Your task to perform on an android device: change the upload size in google photos Image 0: 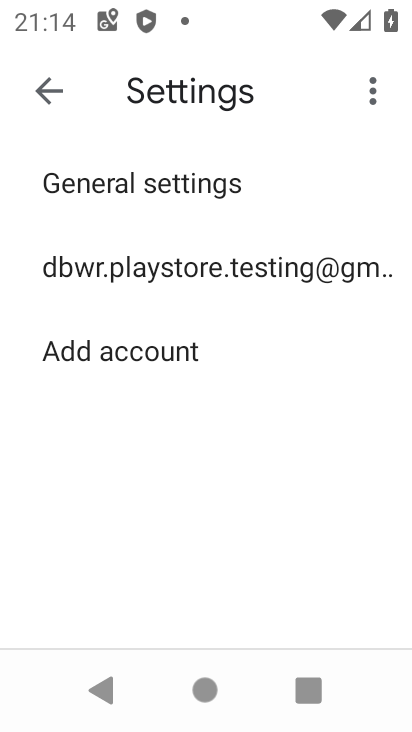
Step 0: press home button
Your task to perform on an android device: change the upload size in google photos Image 1: 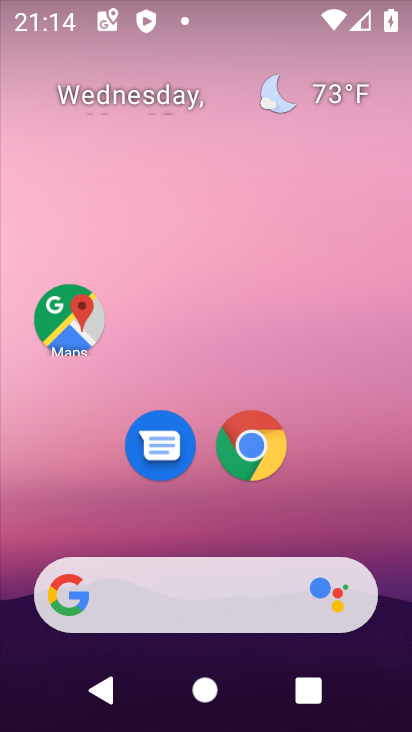
Step 1: drag from (336, 510) to (316, 212)
Your task to perform on an android device: change the upload size in google photos Image 2: 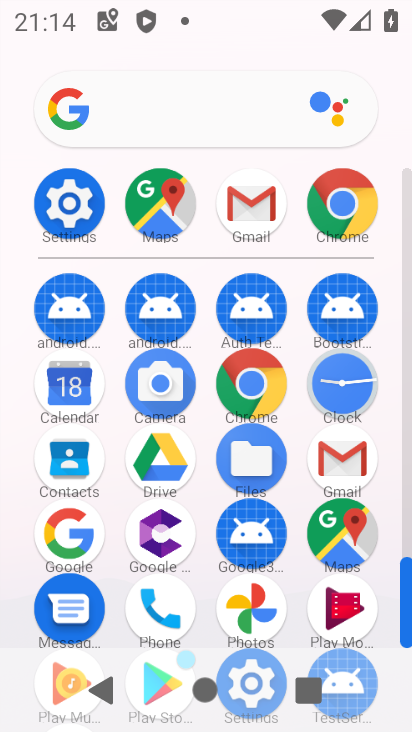
Step 2: click (244, 597)
Your task to perform on an android device: change the upload size in google photos Image 3: 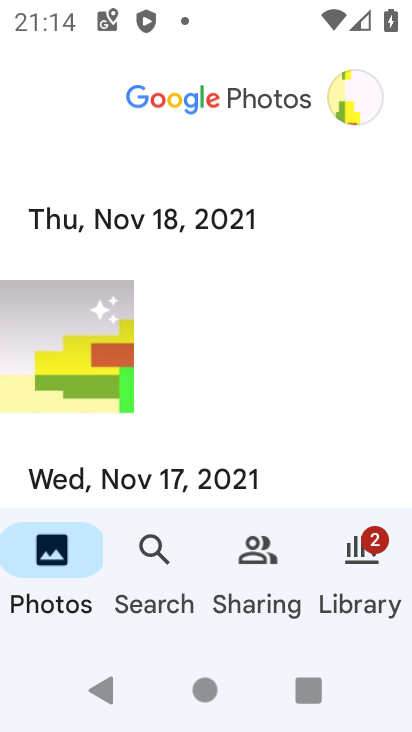
Step 3: click (350, 60)
Your task to perform on an android device: change the upload size in google photos Image 4: 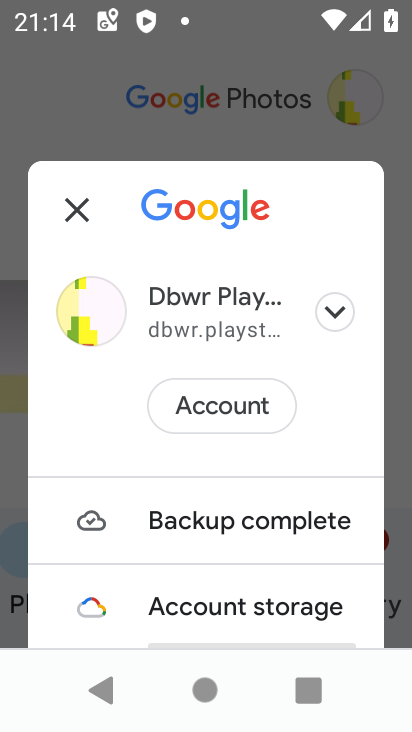
Step 4: drag from (193, 582) to (281, 188)
Your task to perform on an android device: change the upload size in google photos Image 5: 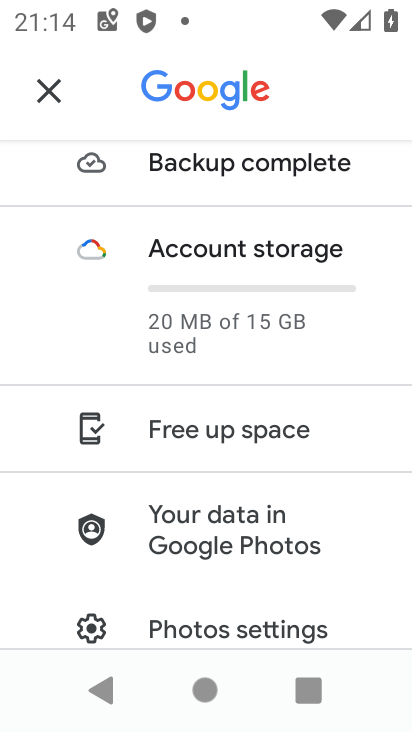
Step 5: click (162, 629)
Your task to perform on an android device: change the upload size in google photos Image 6: 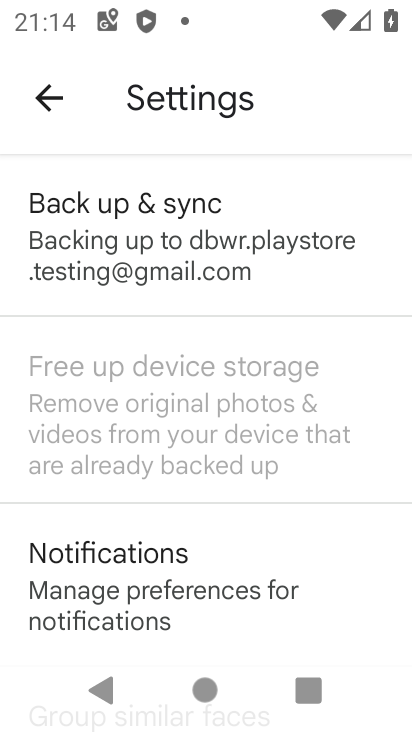
Step 6: click (121, 233)
Your task to perform on an android device: change the upload size in google photos Image 7: 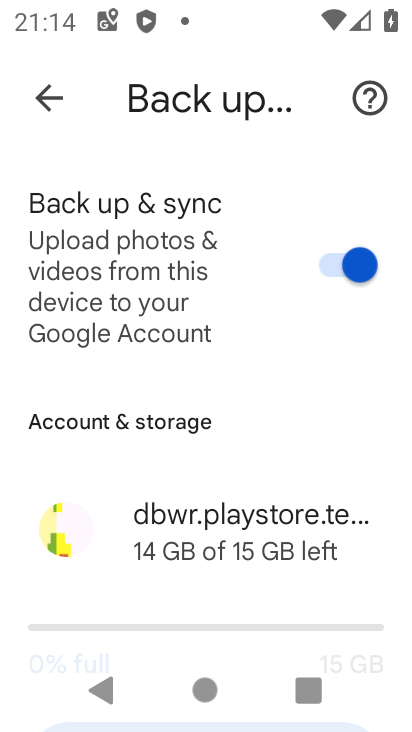
Step 7: drag from (182, 511) to (266, 266)
Your task to perform on an android device: change the upload size in google photos Image 8: 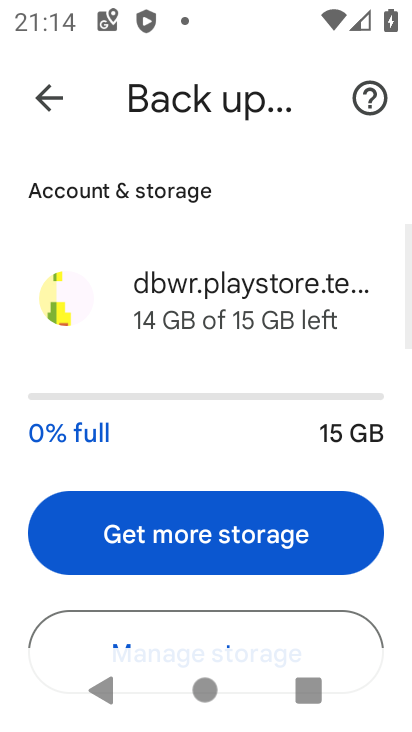
Step 8: drag from (197, 532) to (309, 167)
Your task to perform on an android device: change the upload size in google photos Image 9: 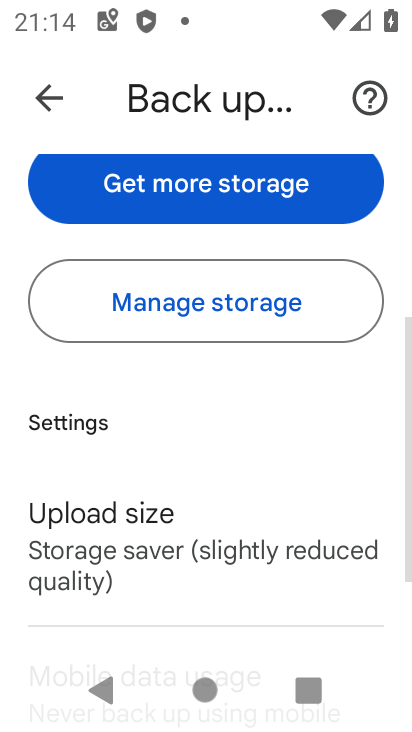
Step 9: click (177, 541)
Your task to perform on an android device: change the upload size in google photos Image 10: 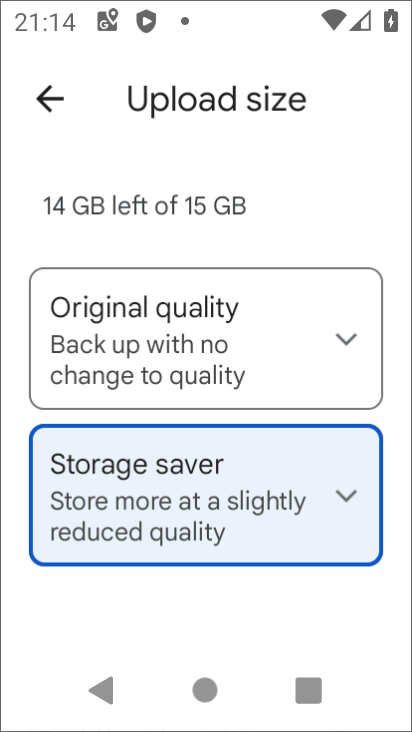
Step 10: drag from (177, 541) to (215, 482)
Your task to perform on an android device: change the upload size in google photos Image 11: 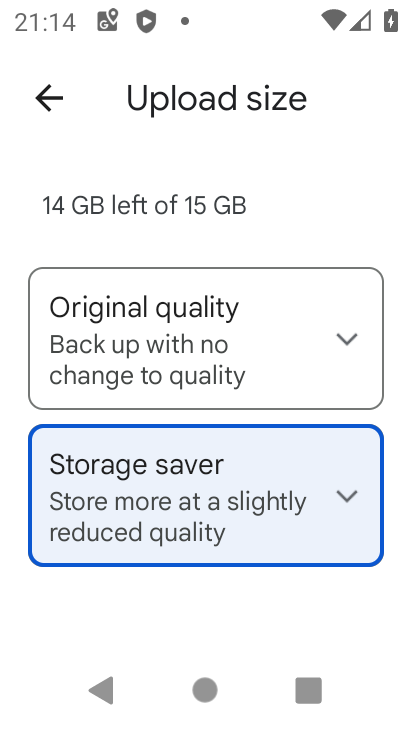
Step 11: click (176, 340)
Your task to perform on an android device: change the upload size in google photos Image 12: 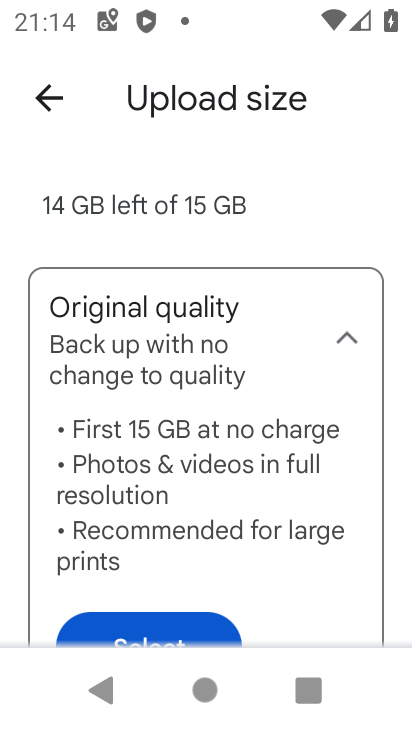
Step 12: click (158, 451)
Your task to perform on an android device: change the upload size in google photos Image 13: 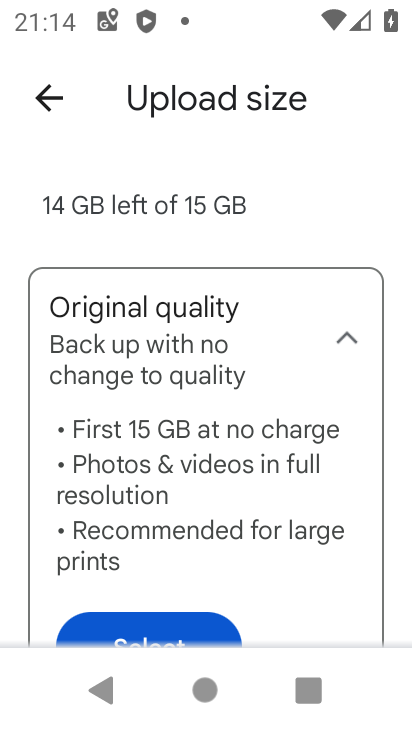
Step 13: click (353, 340)
Your task to perform on an android device: change the upload size in google photos Image 14: 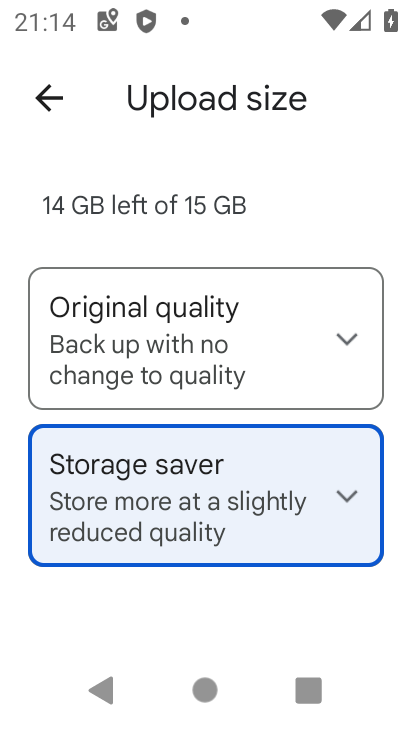
Step 14: click (205, 328)
Your task to perform on an android device: change the upload size in google photos Image 15: 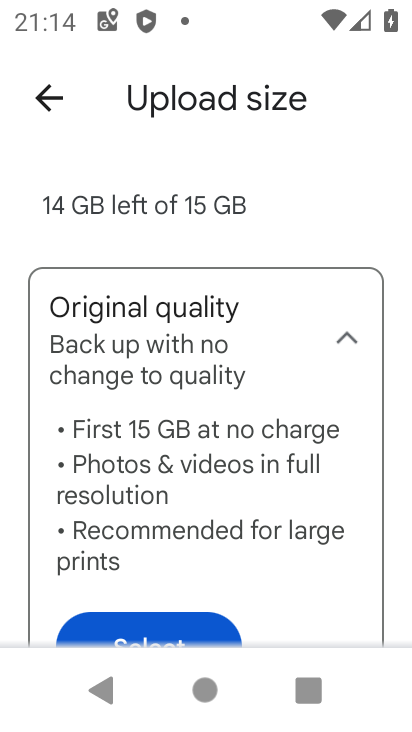
Step 15: click (345, 340)
Your task to perform on an android device: change the upload size in google photos Image 16: 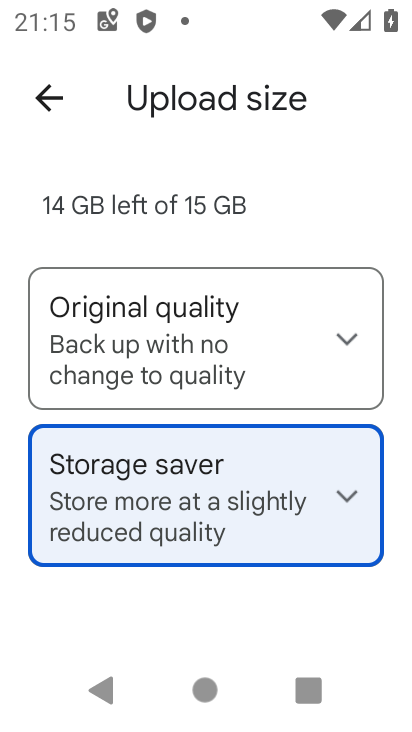
Step 16: click (197, 331)
Your task to perform on an android device: change the upload size in google photos Image 17: 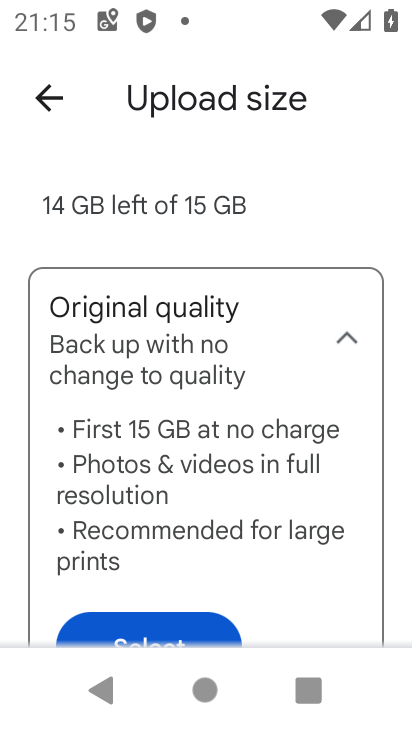
Step 17: drag from (233, 584) to (263, 441)
Your task to perform on an android device: change the upload size in google photos Image 18: 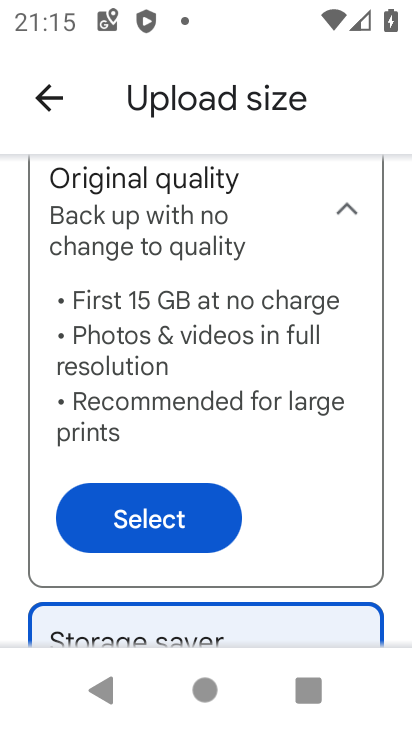
Step 18: click (117, 512)
Your task to perform on an android device: change the upload size in google photos Image 19: 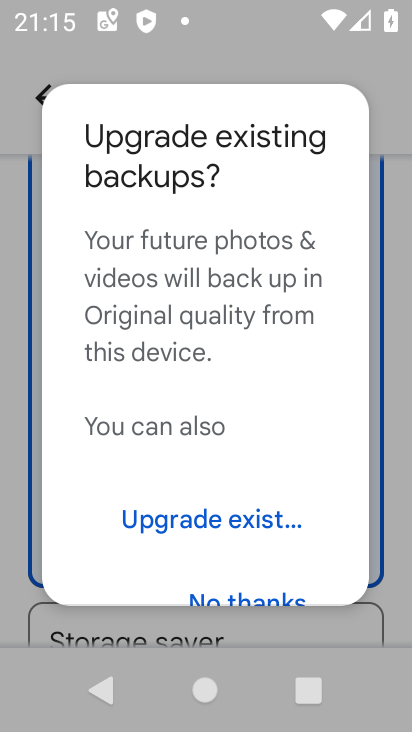
Step 19: click (232, 586)
Your task to perform on an android device: change the upload size in google photos Image 20: 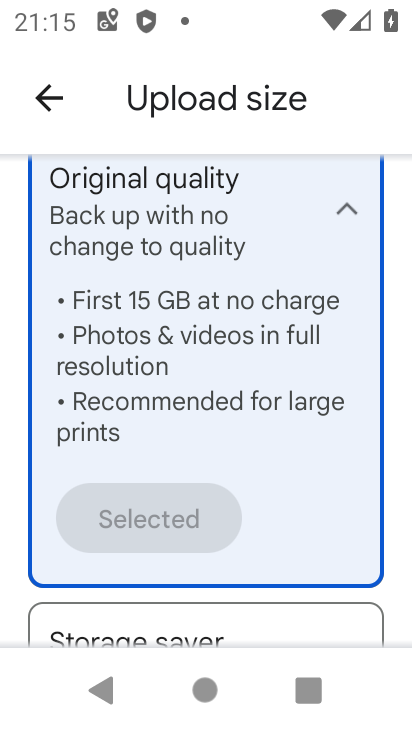
Step 20: task complete